Your task to perform on an android device: clear all cookies in the chrome app Image 0: 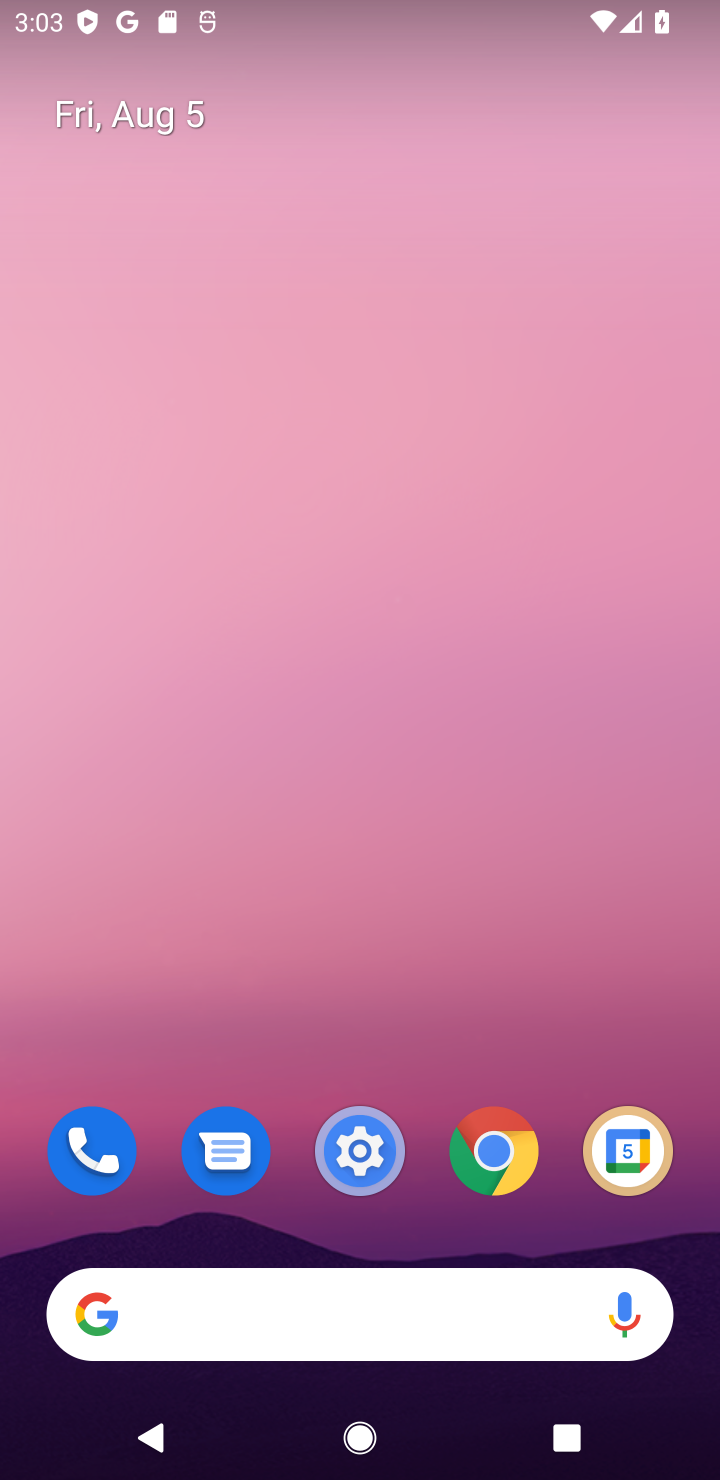
Step 0: click (481, 1129)
Your task to perform on an android device: clear all cookies in the chrome app Image 1: 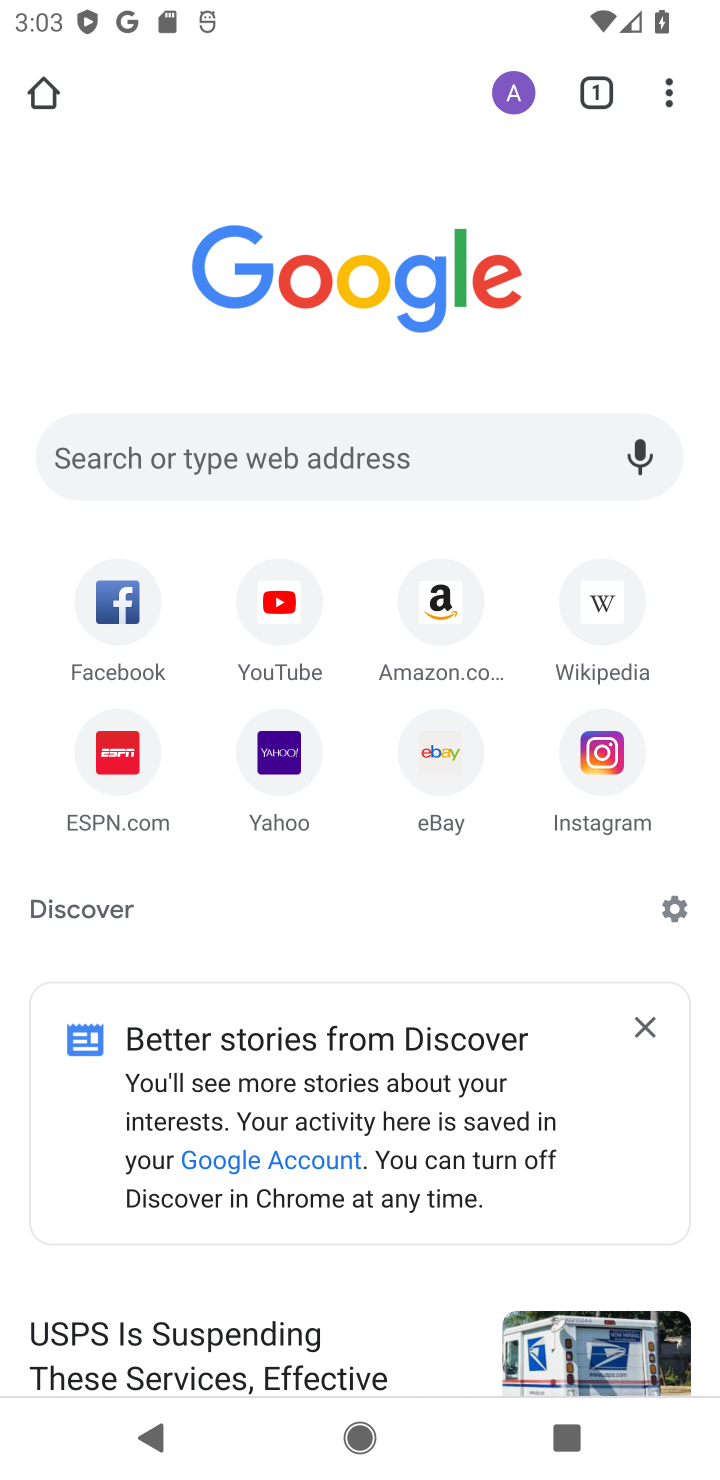
Step 1: click (675, 75)
Your task to perform on an android device: clear all cookies in the chrome app Image 2: 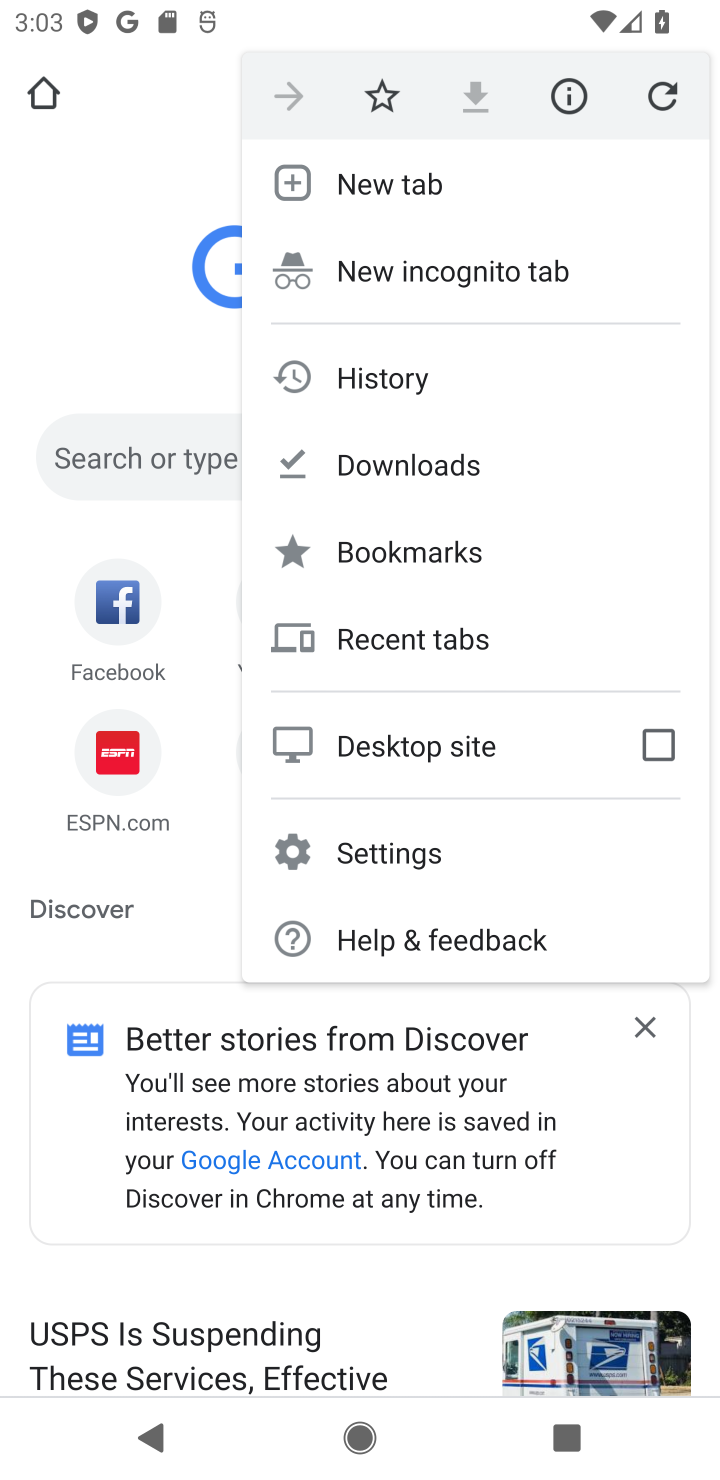
Step 2: click (422, 374)
Your task to perform on an android device: clear all cookies in the chrome app Image 3: 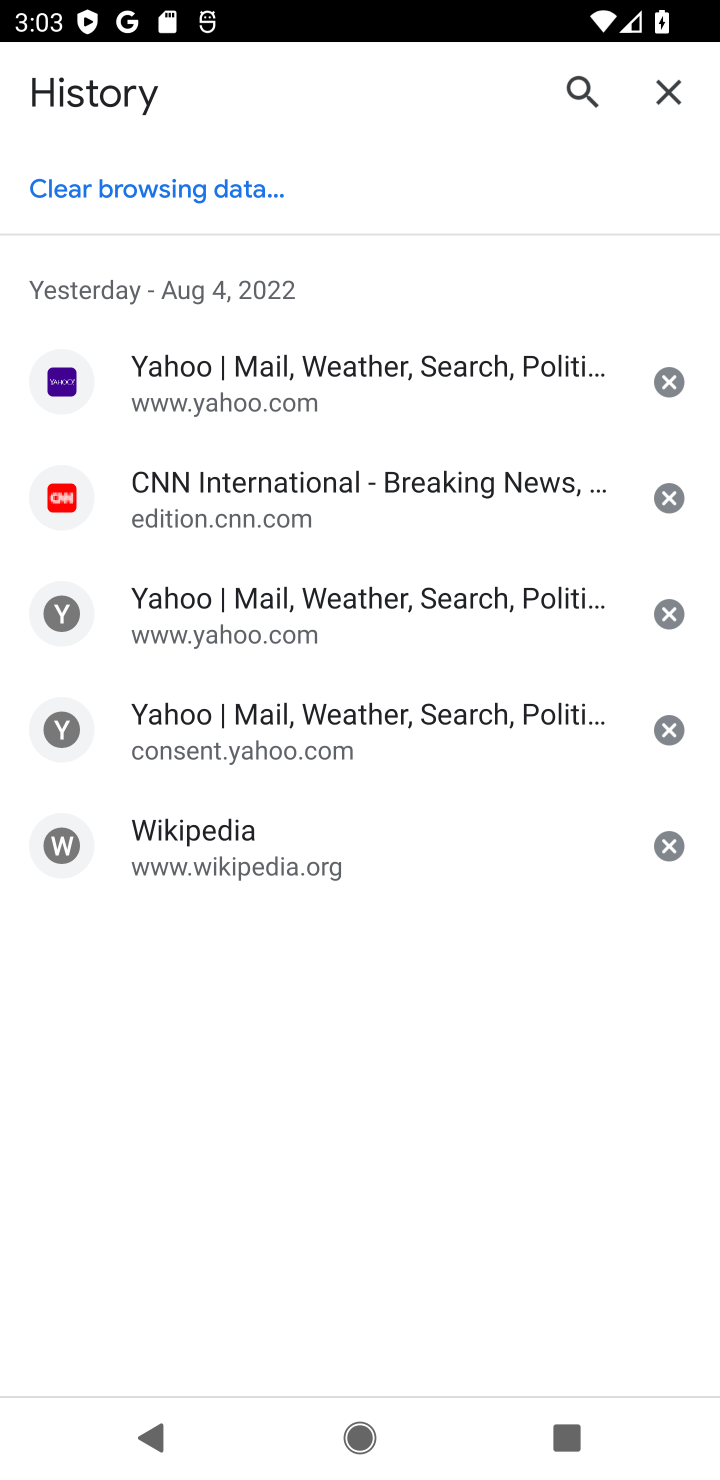
Step 3: click (230, 184)
Your task to perform on an android device: clear all cookies in the chrome app Image 4: 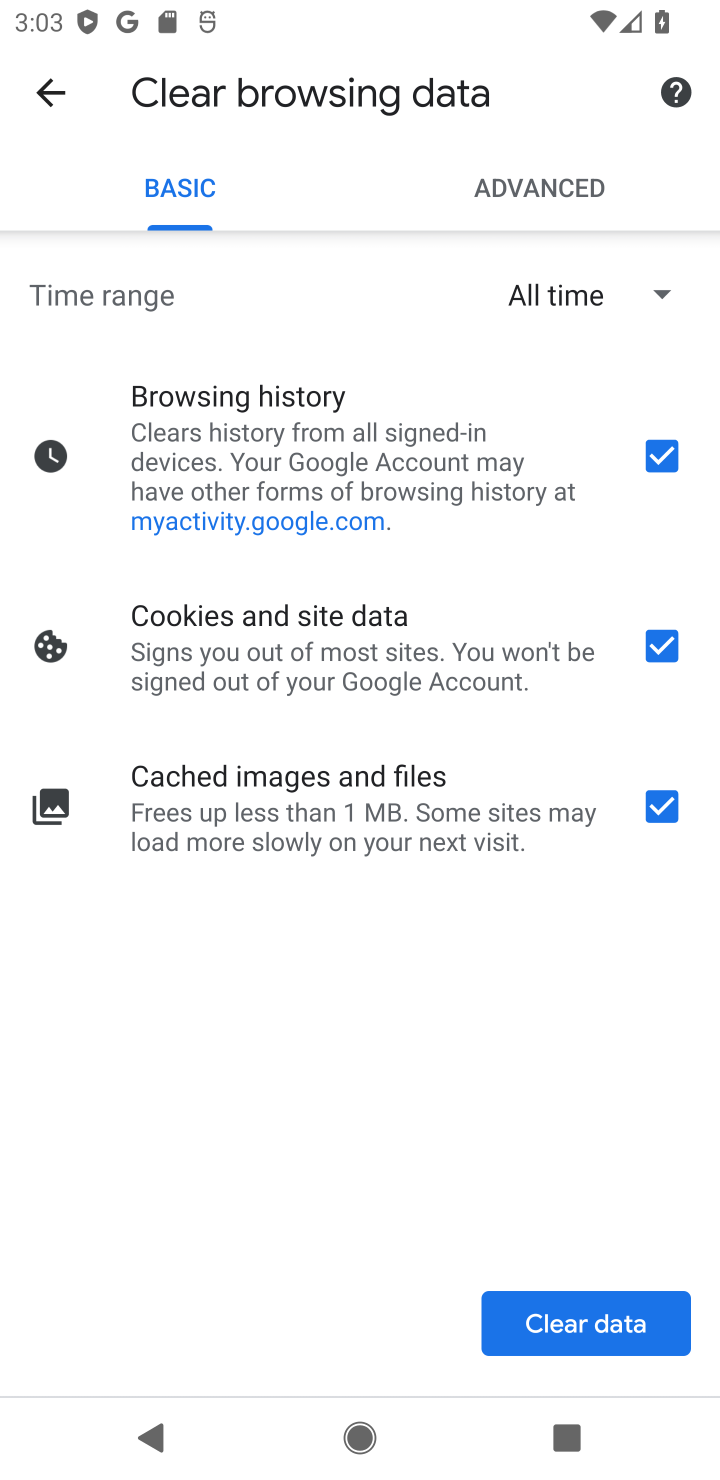
Step 4: click (645, 458)
Your task to perform on an android device: clear all cookies in the chrome app Image 5: 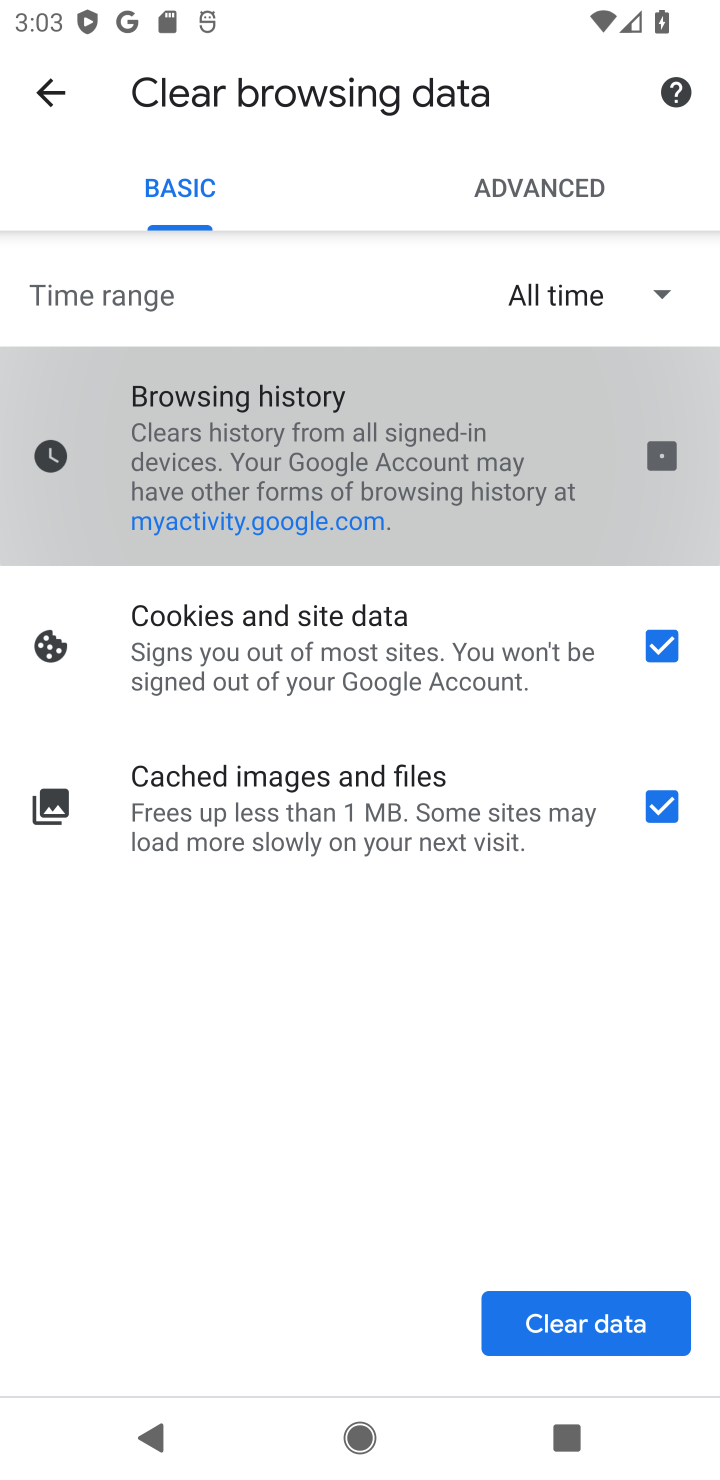
Step 5: click (647, 817)
Your task to perform on an android device: clear all cookies in the chrome app Image 6: 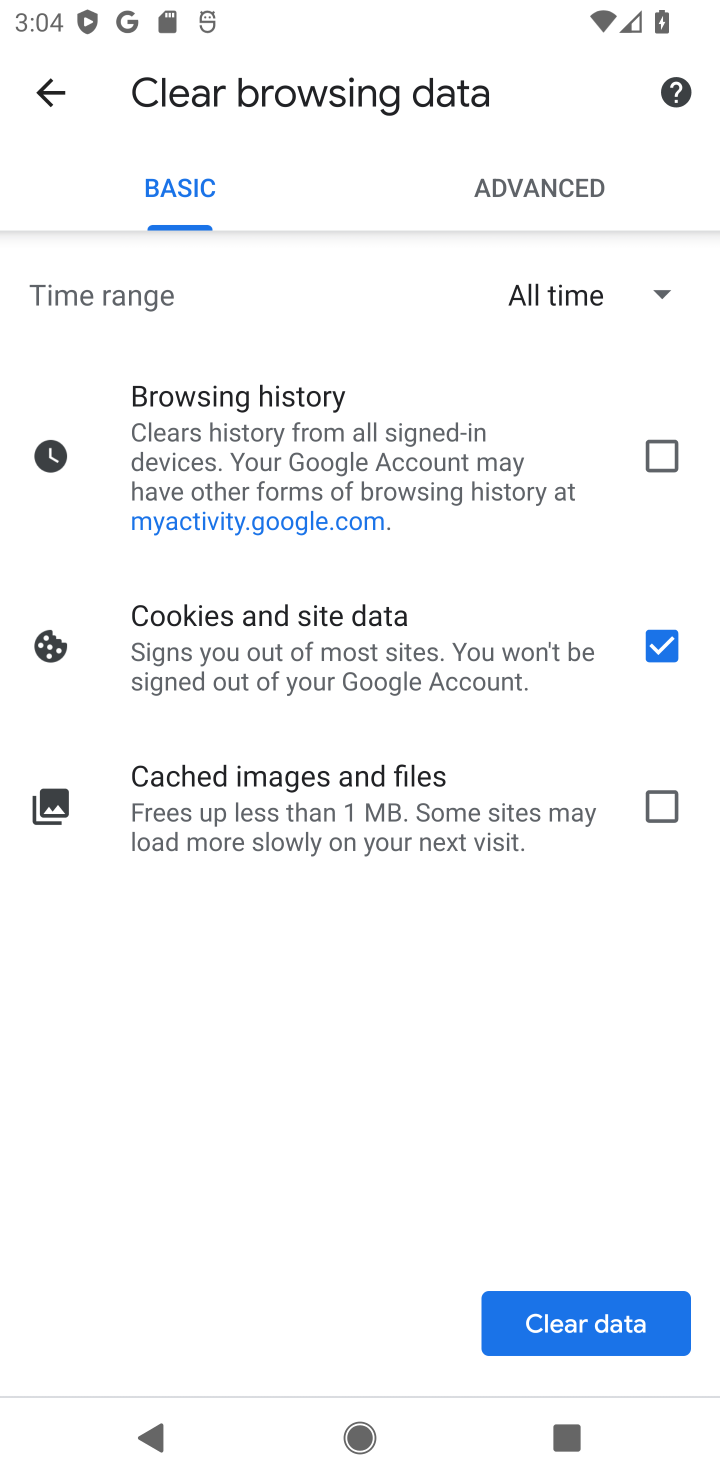
Step 6: click (585, 1319)
Your task to perform on an android device: clear all cookies in the chrome app Image 7: 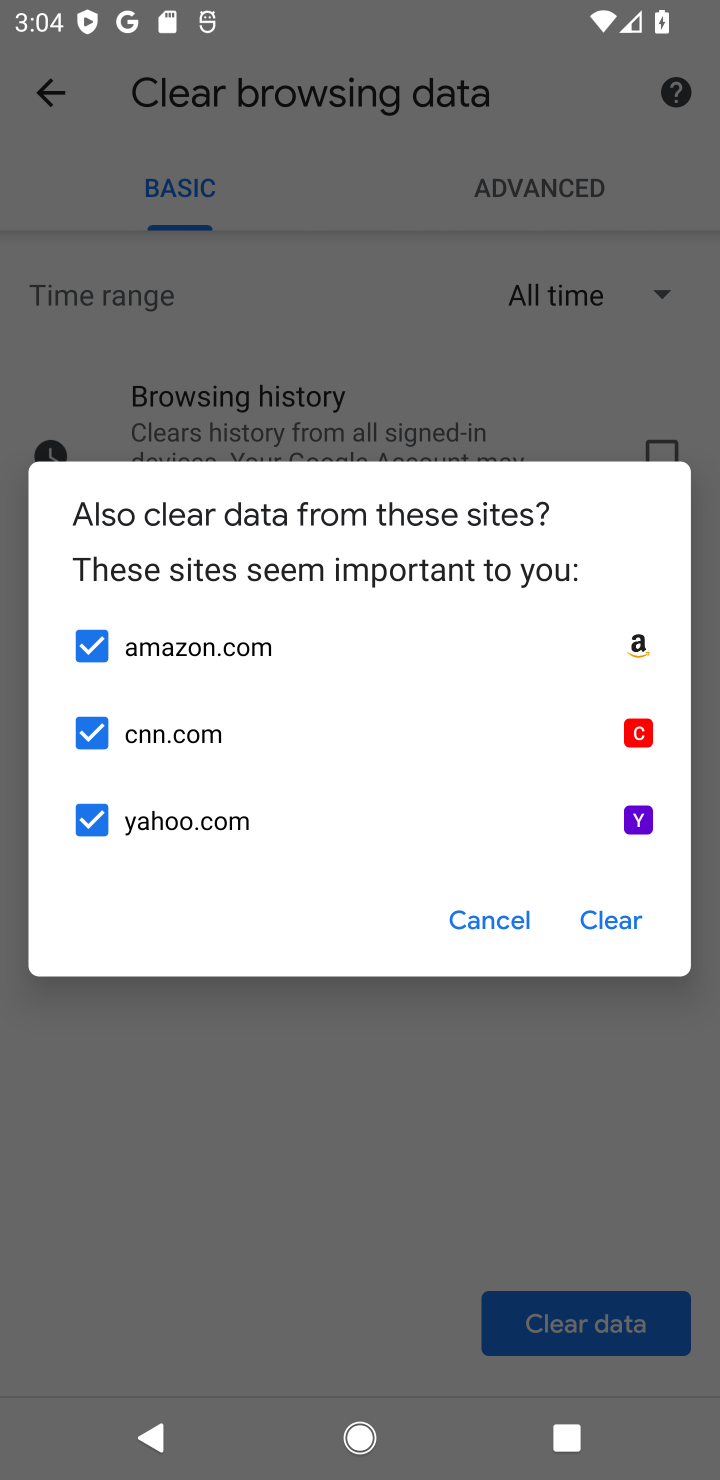
Step 7: click (631, 919)
Your task to perform on an android device: clear all cookies in the chrome app Image 8: 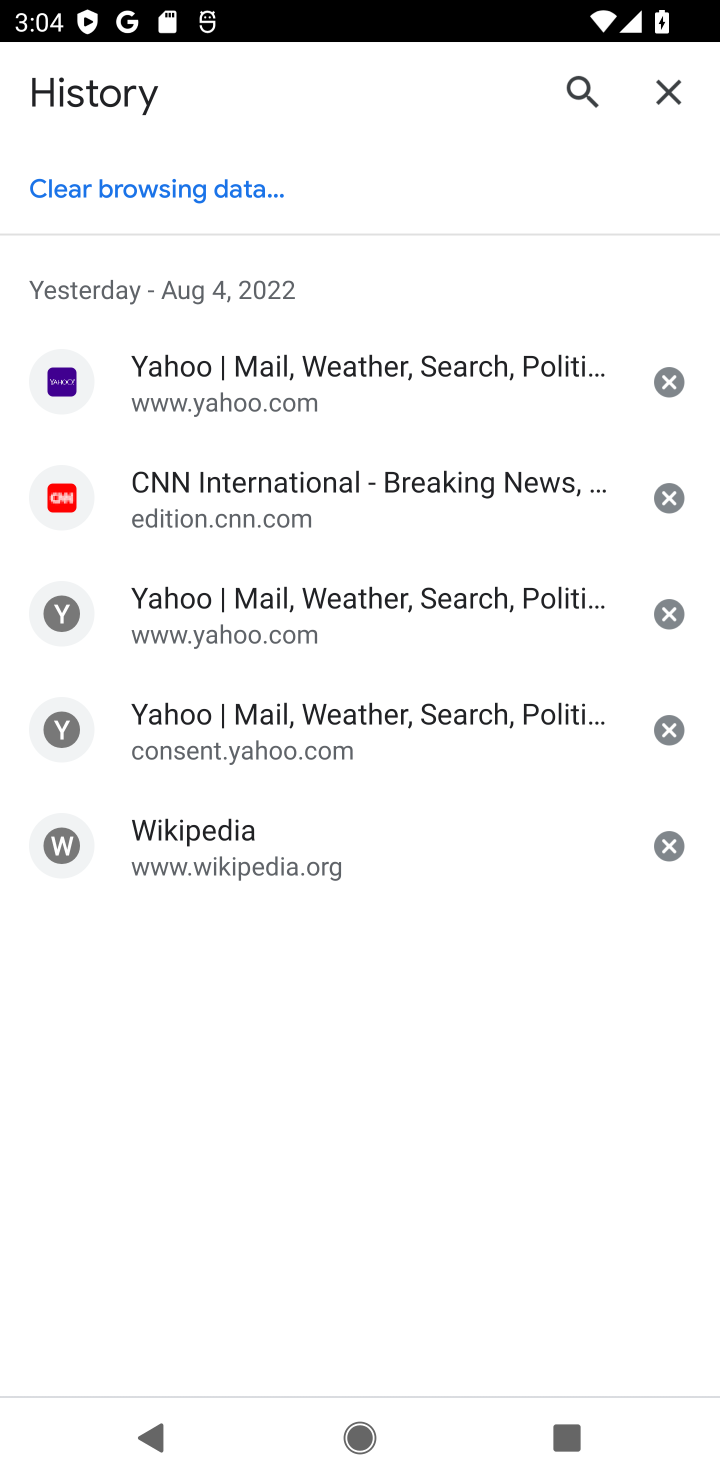
Step 8: task complete